Your task to perform on an android device: empty trash in the gmail app Image 0: 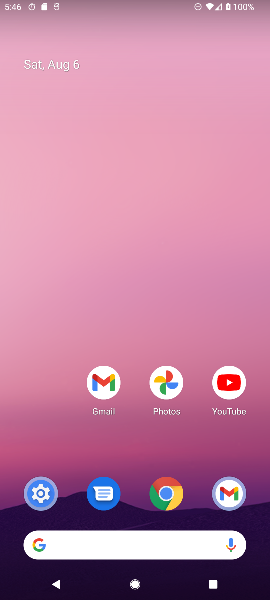
Step 0: drag from (141, 529) to (65, 204)
Your task to perform on an android device: empty trash in the gmail app Image 1: 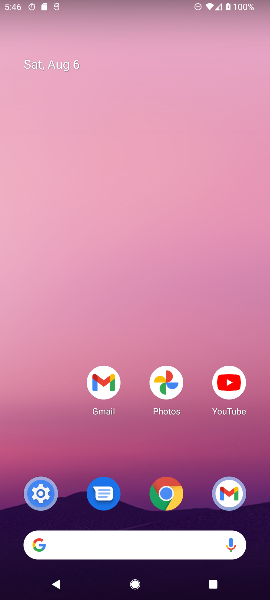
Step 1: click (93, 161)
Your task to perform on an android device: empty trash in the gmail app Image 2: 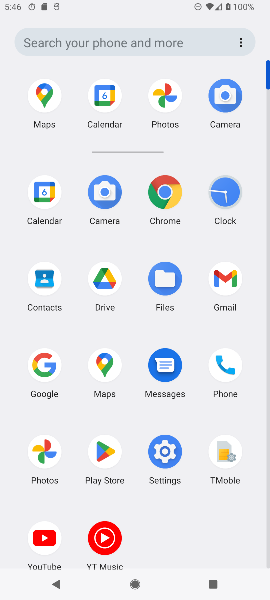
Step 2: drag from (113, 448) to (117, 127)
Your task to perform on an android device: empty trash in the gmail app Image 3: 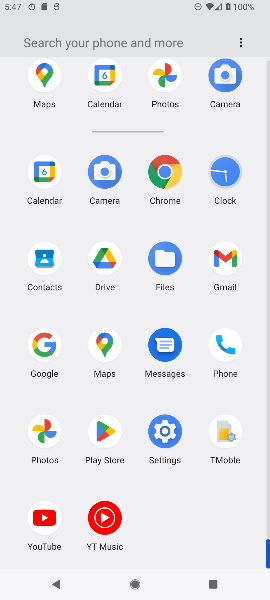
Step 3: click (228, 250)
Your task to perform on an android device: empty trash in the gmail app Image 4: 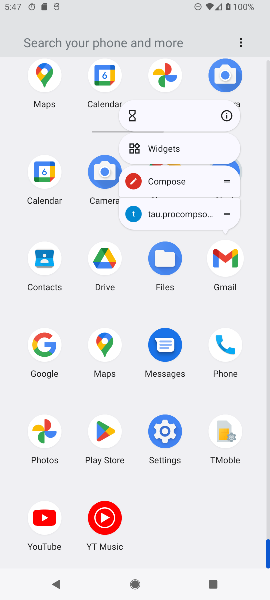
Step 4: click (225, 252)
Your task to perform on an android device: empty trash in the gmail app Image 5: 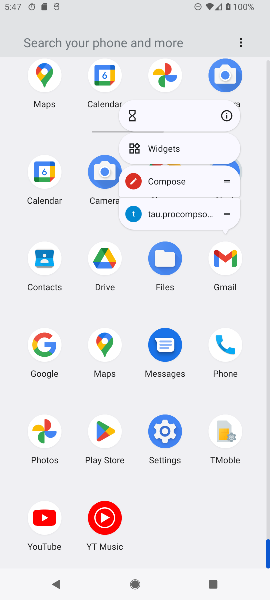
Step 5: click (222, 252)
Your task to perform on an android device: empty trash in the gmail app Image 6: 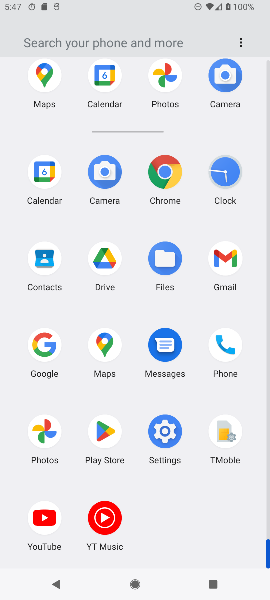
Step 6: click (221, 251)
Your task to perform on an android device: empty trash in the gmail app Image 7: 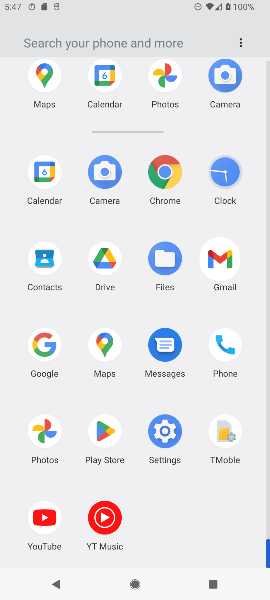
Step 7: click (221, 251)
Your task to perform on an android device: empty trash in the gmail app Image 8: 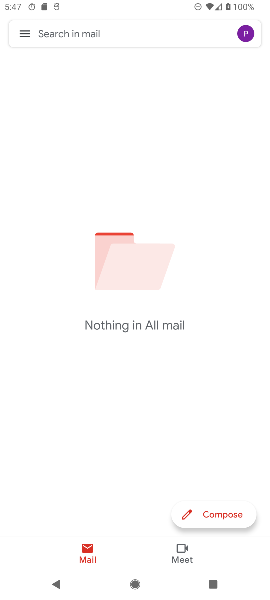
Step 8: click (221, 251)
Your task to perform on an android device: empty trash in the gmail app Image 9: 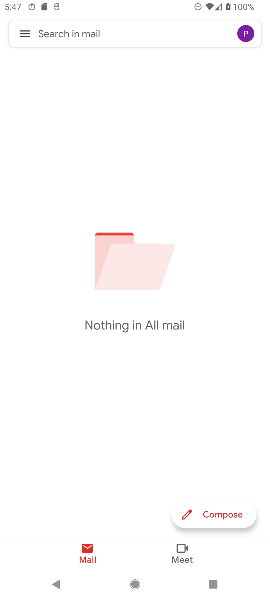
Step 9: click (25, 35)
Your task to perform on an android device: empty trash in the gmail app Image 10: 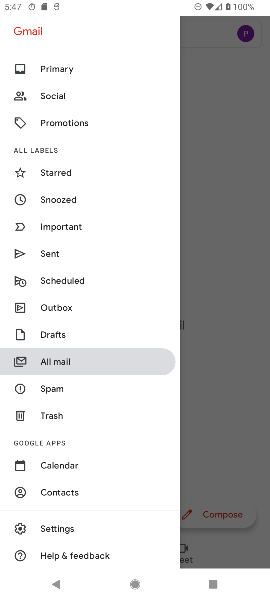
Step 10: click (49, 416)
Your task to perform on an android device: empty trash in the gmail app Image 11: 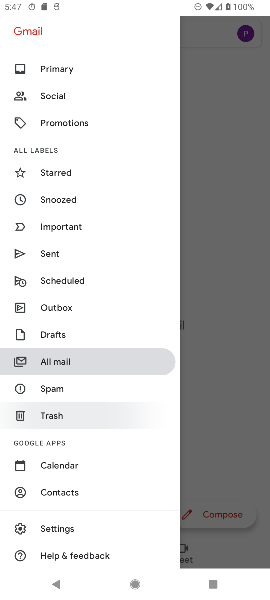
Step 11: click (53, 412)
Your task to perform on an android device: empty trash in the gmail app Image 12: 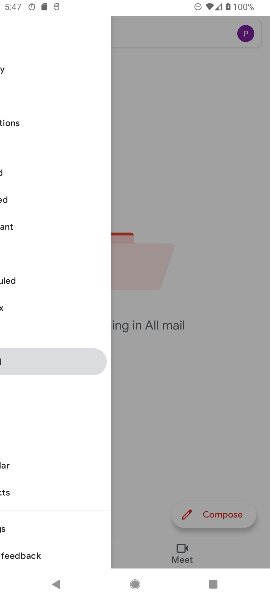
Step 12: click (52, 410)
Your task to perform on an android device: empty trash in the gmail app Image 13: 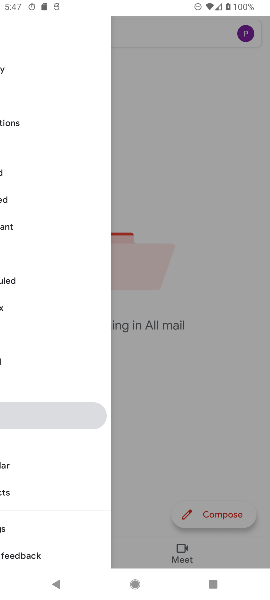
Step 13: click (52, 410)
Your task to perform on an android device: empty trash in the gmail app Image 14: 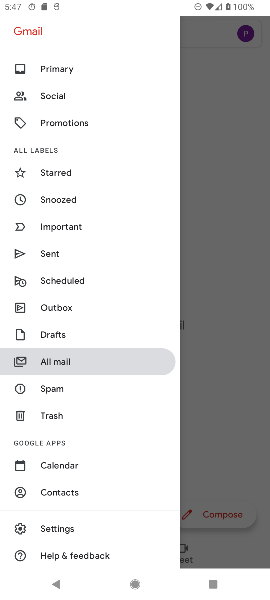
Step 14: click (35, 415)
Your task to perform on an android device: empty trash in the gmail app Image 15: 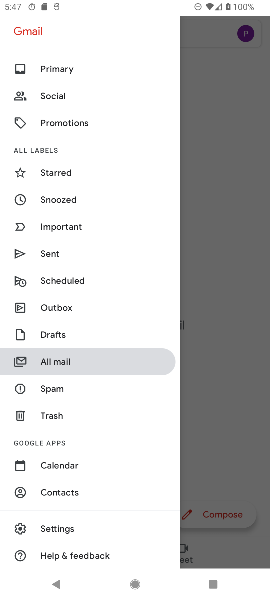
Step 15: task complete